Your task to perform on an android device: Open CNN.com Image 0: 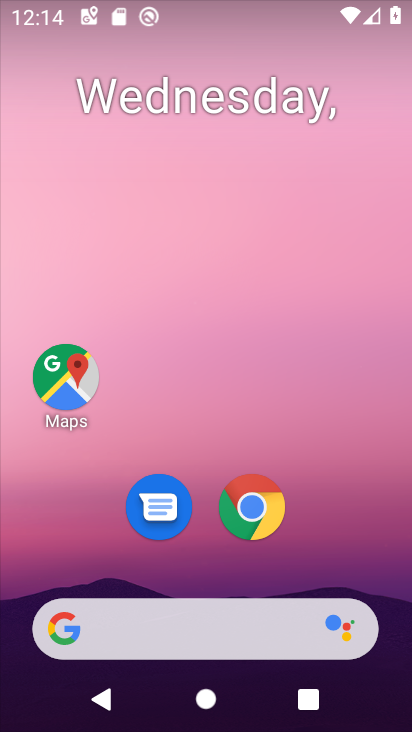
Step 0: click (173, 120)
Your task to perform on an android device: Open CNN.com Image 1: 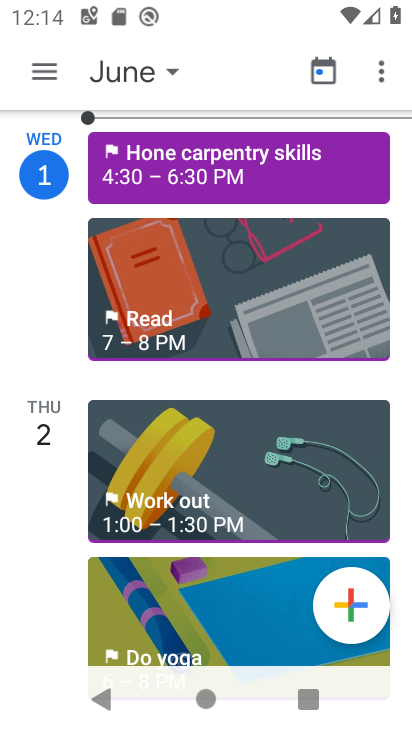
Step 1: press back button
Your task to perform on an android device: Open CNN.com Image 2: 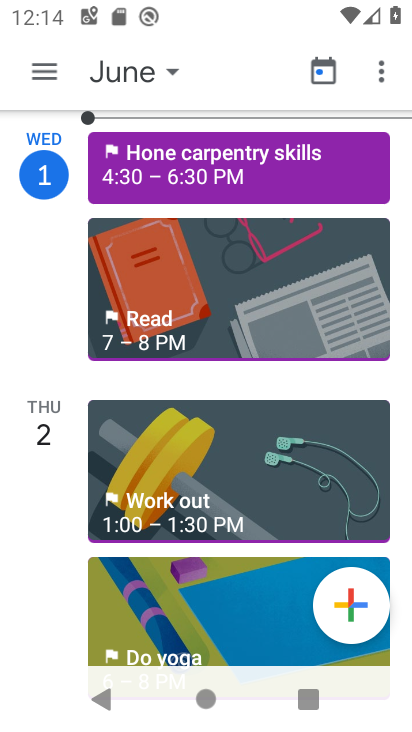
Step 2: press back button
Your task to perform on an android device: Open CNN.com Image 3: 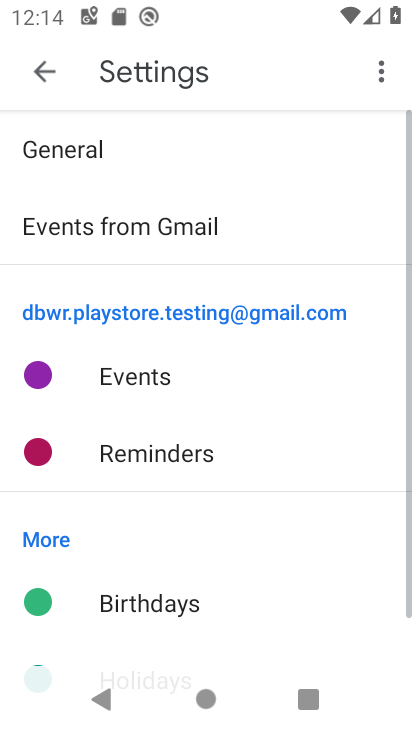
Step 3: press back button
Your task to perform on an android device: Open CNN.com Image 4: 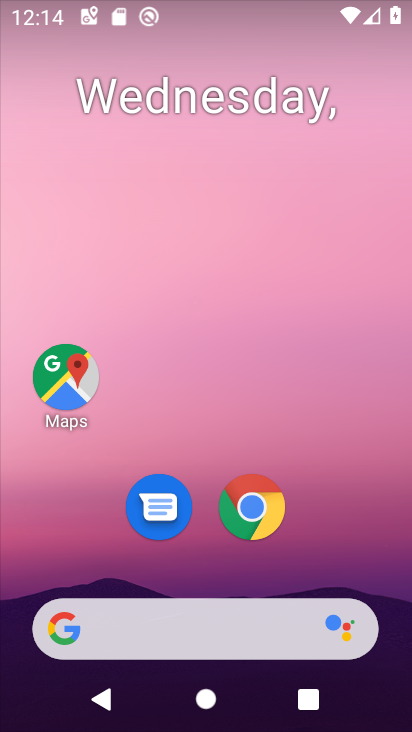
Step 4: drag from (294, 713) to (224, 320)
Your task to perform on an android device: Open CNN.com Image 5: 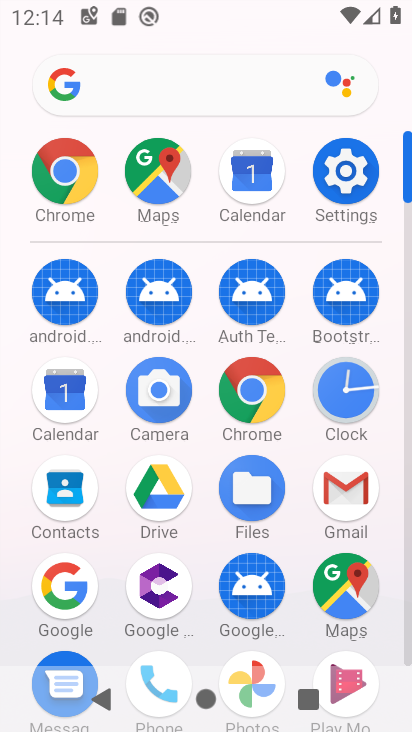
Step 5: click (75, 189)
Your task to perform on an android device: Open CNN.com Image 6: 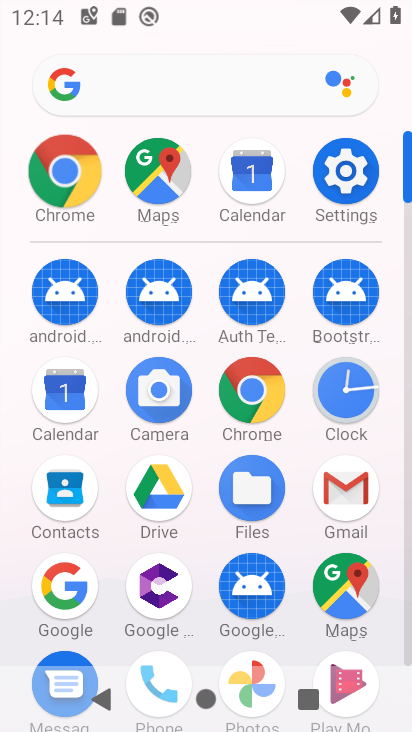
Step 6: click (45, 162)
Your task to perform on an android device: Open CNN.com Image 7: 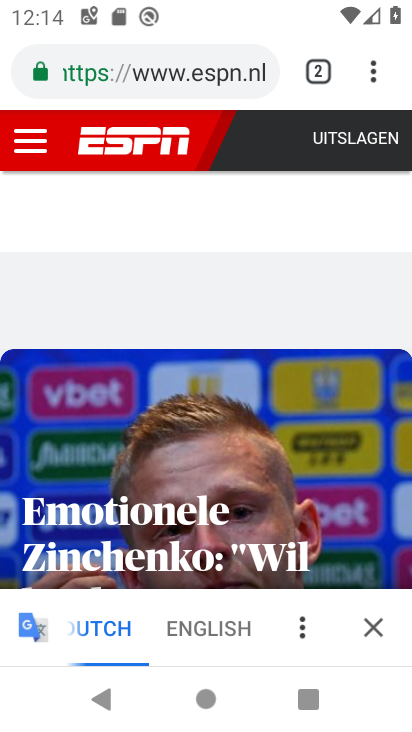
Step 7: drag from (373, 77) to (115, 130)
Your task to perform on an android device: Open CNN.com Image 8: 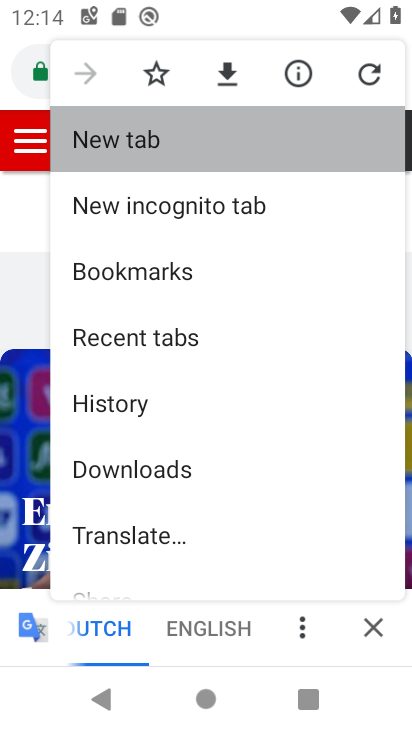
Step 8: click (115, 130)
Your task to perform on an android device: Open CNN.com Image 9: 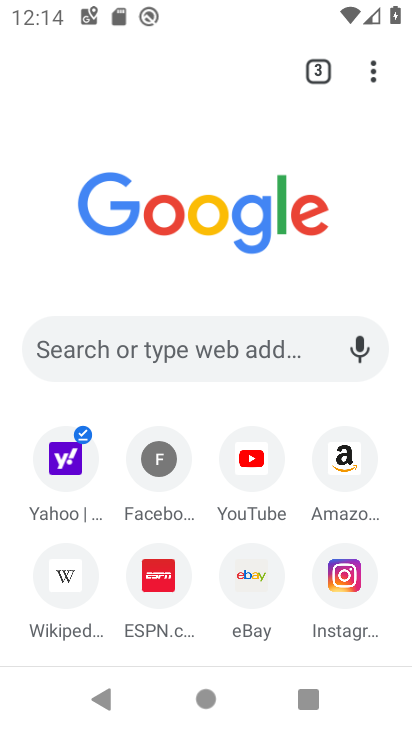
Step 9: click (69, 354)
Your task to perform on an android device: Open CNN.com Image 10: 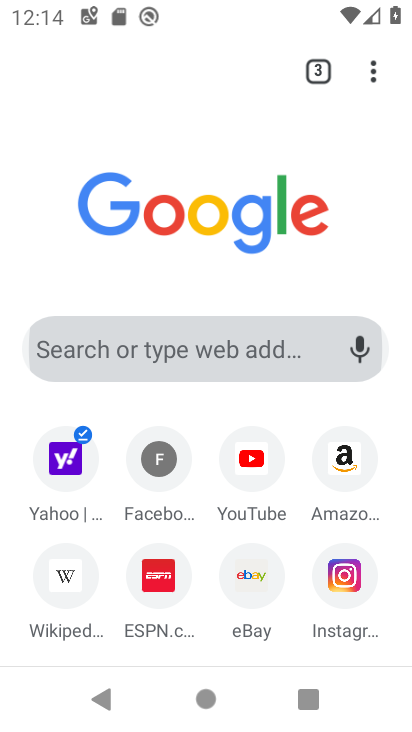
Step 10: click (69, 354)
Your task to perform on an android device: Open CNN.com Image 11: 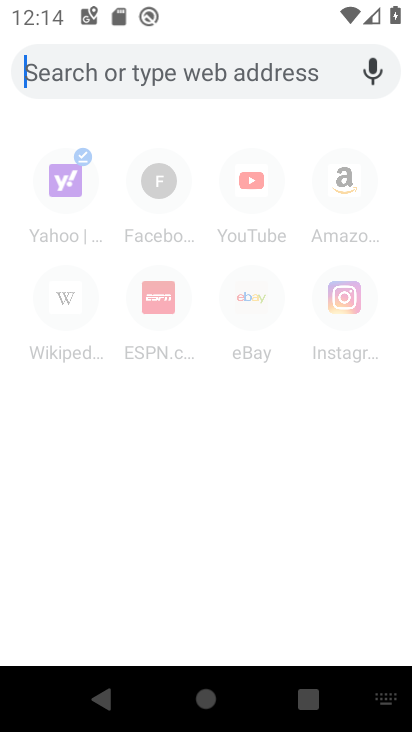
Step 11: type "cnn.com"
Your task to perform on an android device: Open CNN.com Image 12: 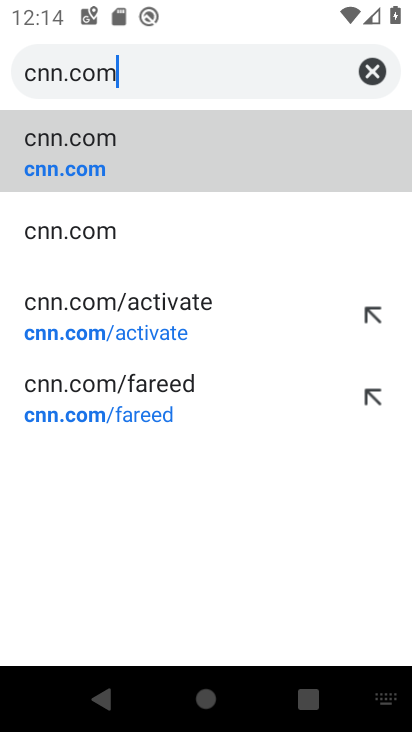
Step 12: click (76, 164)
Your task to perform on an android device: Open CNN.com Image 13: 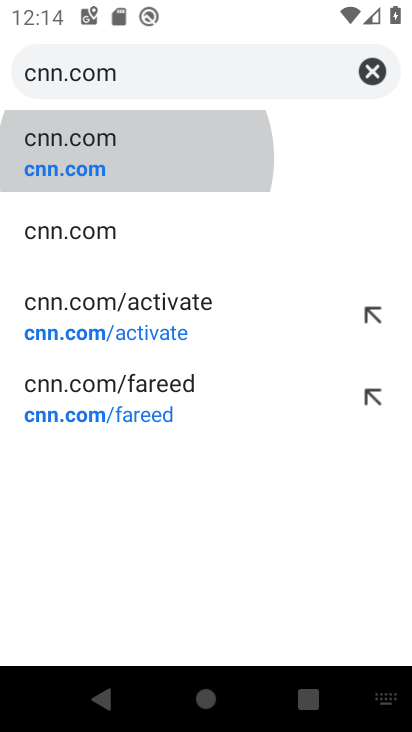
Step 13: click (75, 163)
Your task to perform on an android device: Open CNN.com Image 14: 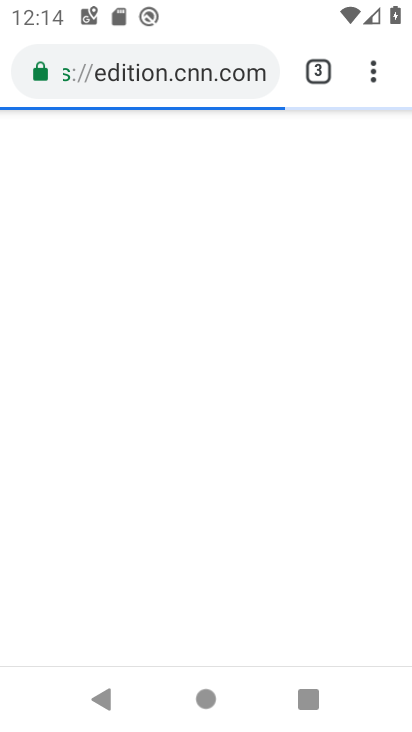
Step 14: task complete